Your task to perform on an android device: Search for apple airpods on target.com, select the first entry, add it to the cart, then select checkout. Image 0: 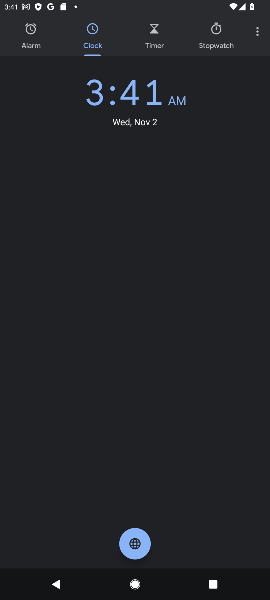
Step 0: press home button
Your task to perform on an android device: Search for apple airpods on target.com, select the first entry, add it to the cart, then select checkout. Image 1: 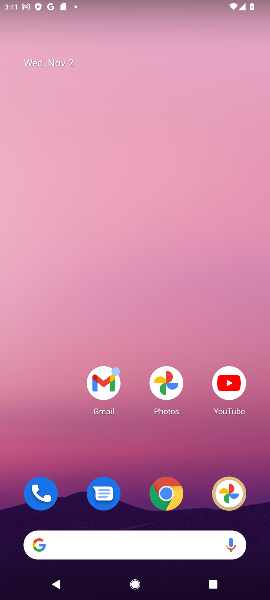
Step 1: drag from (147, 506) to (153, 158)
Your task to perform on an android device: Search for apple airpods on target.com, select the first entry, add it to the cart, then select checkout. Image 2: 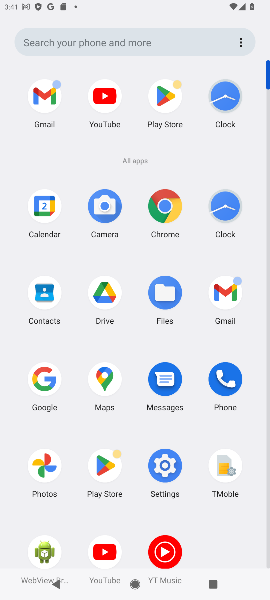
Step 2: click (43, 380)
Your task to perform on an android device: Search for apple airpods on target.com, select the first entry, add it to the cart, then select checkout. Image 3: 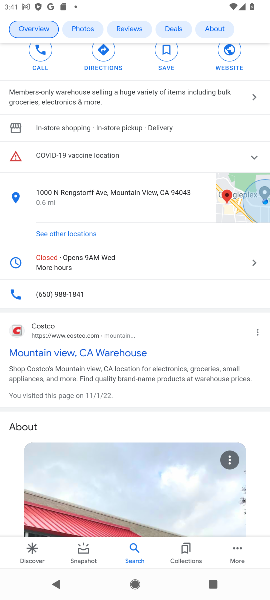
Step 3: drag from (135, 123) to (108, 378)
Your task to perform on an android device: Search for apple airpods on target.com, select the first entry, add it to the cart, then select checkout. Image 4: 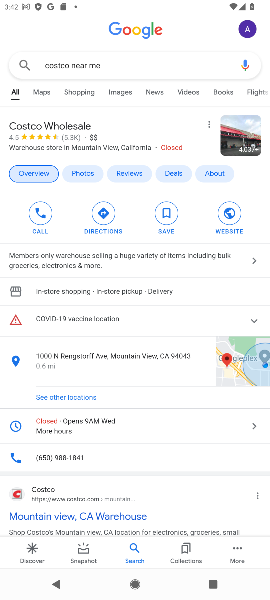
Step 4: click (114, 63)
Your task to perform on an android device: Search for apple airpods on target.com, select the first entry, add it to the cart, then select checkout. Image 5: 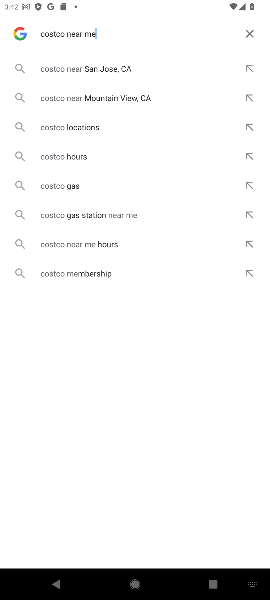
Step 5: click (252, 30)
Your task to perform on an android device: Search for apple airpods on target.com, select the first entry, add it to the cart, then select checkout. Image 6: 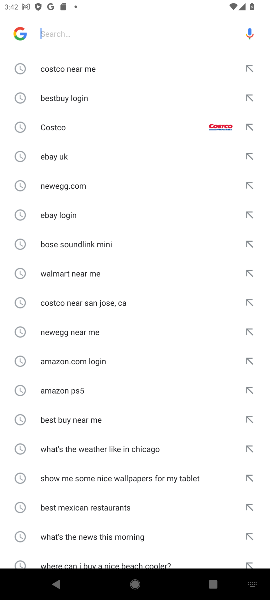
Step 6: click (83, 27)
Your task to perform on an android device: Search for apple airpods on target.com, select the first entry, add it to the cart, then select checkout. Image 7: 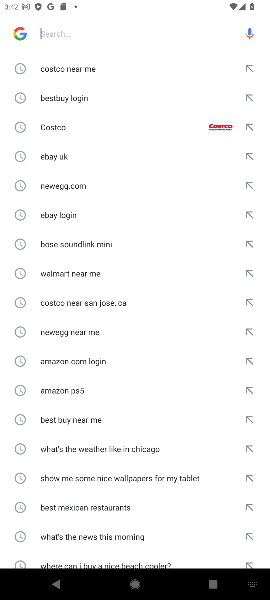
Step 7: click (70, 32)
Your task to perform on an android device: Search for apple airpods on target.com, select the first entry, add it to the cart, then select checkout. Image 8: 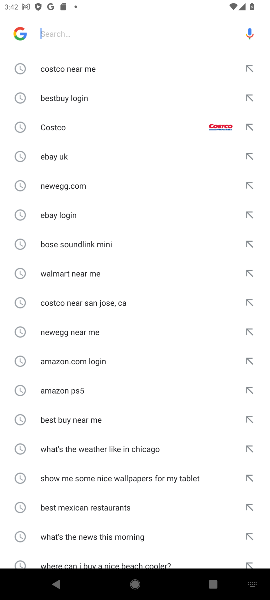
Step 8: click (70, 32)
Your task to perform on an android device: Search for apple airpods on target.com, select the first entry, add it to the cart, then select checkout. Image 9: 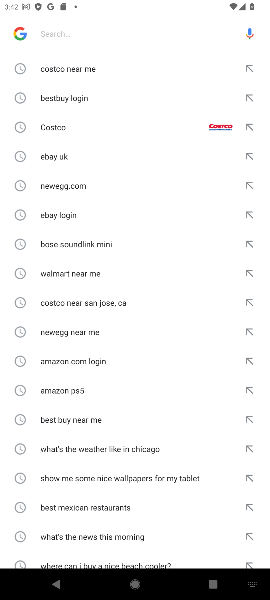
Step 9: click (70, 32)
Your task to perform on an android device: Search for apple airpods on target.com, select the first entry, add it to the cart, then select checkout. Image 10: 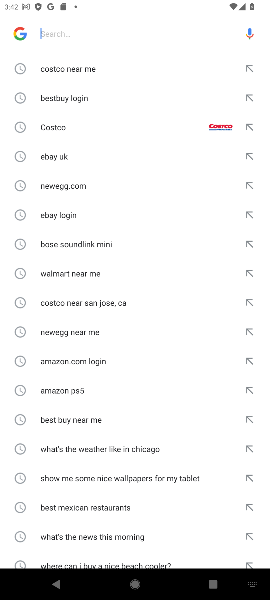
Step 10: type "target "
Your task to perform on an android device: Search for apple airpods on target.com, select the first entry, add it to the cart, then select checkout. Image 11: 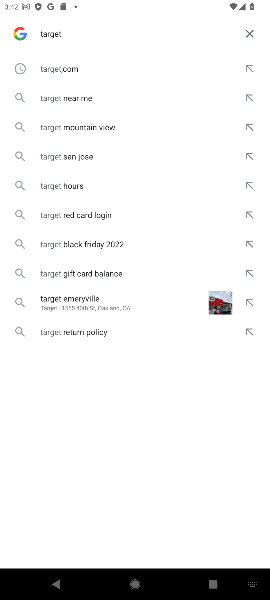
Step 11: click (50, 65)
Your task to perform on an android device: Search for apple airpods on target.com, select the first entry, add it to the cart, then select checkout. Image 12: 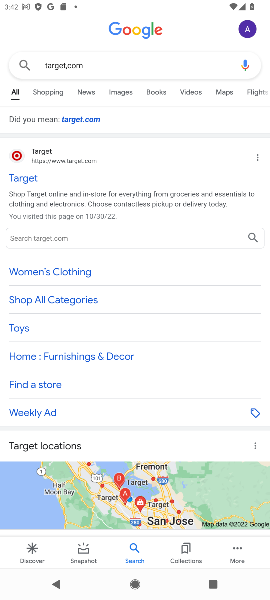
Step 12: click (15, 157)
Your task to perform on an android device: Search for apple airpods on target.com, select the first entry, add it to the cart, then select checkout. Image 13: 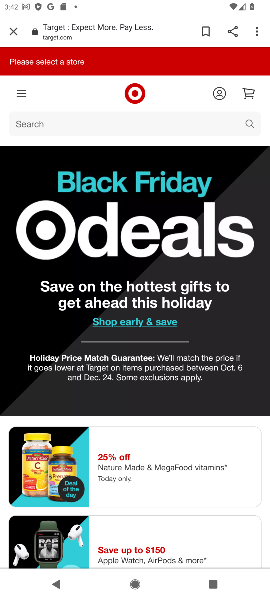
Step 13: click (104, 120)
Your task to perform on an android device: Search for apple airpods on target.com, select the first entry, add it to the cart, then select checkout. Image 14: 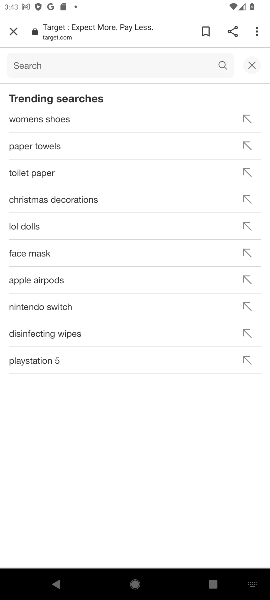
Step 14: click (65, 61)
Your task to perform on an android device: Search for apple airpods on target.com, select the first entry, add it to the cart, then select checkout. Image 15: 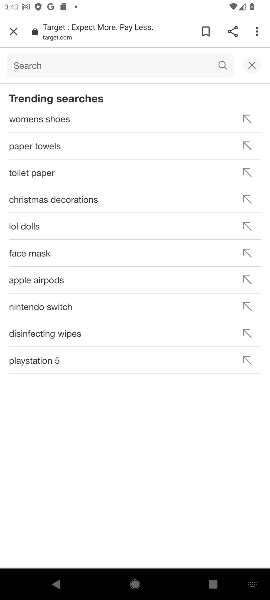
Step 15: type "airpods "
Your task to perform on an android device: Search for apple airpods on target.com, select the first entry, add it to the cart, then select checkout. Image 16: 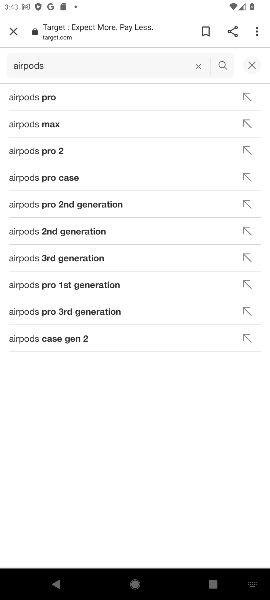
Step 16: click (28, 98)
Your task to perform on an android device: Search for apple airpods on target.com, select the first entry, add it to the cart, then select checkout. Image 17: 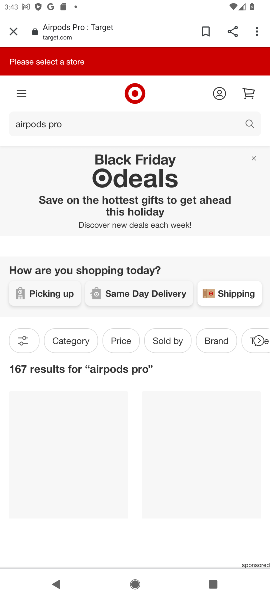
Step 17: drag from (127, 510) to (153, 238)
Your task to perform on an android device: Search for apple airpods on target.com, select the first entry, add it to the cart, then select checkout. Image 18: 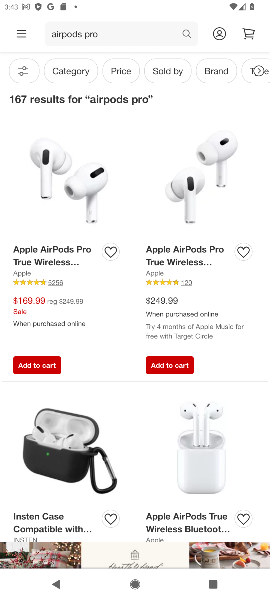
Step 18: click (27, 361)
Your task to perform on an android device: Search for apple airpods on target.com, select the first entry, add it to the cart, then select checkout. Image 19: 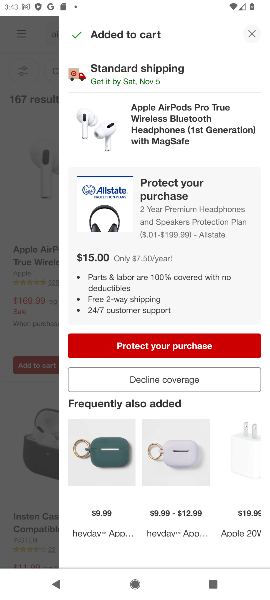
Step 19: task complete